Your task to perform on an android device: turn off data saver in the chrome app Image 0: 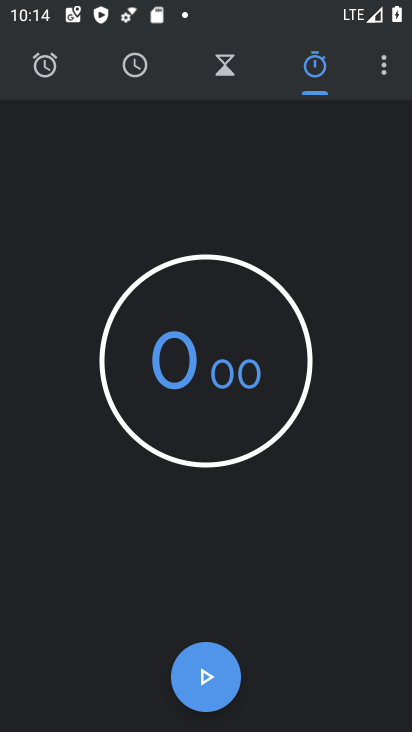
Step 0: press home button
Your task to perform on an android device: turn off data saver in the chrome app Image 1: 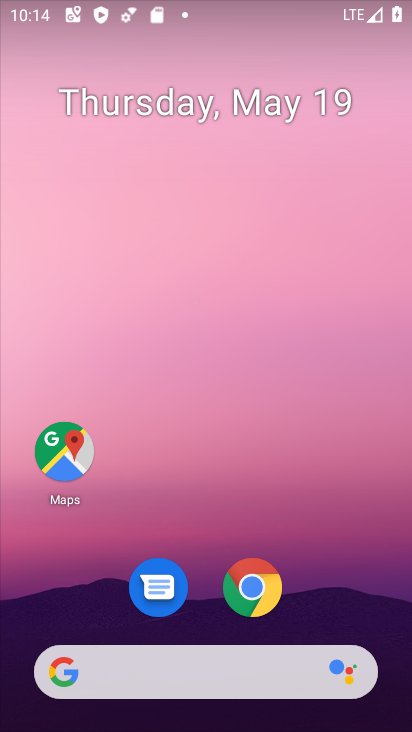
Step 1: click (263, 593)
Your task to perform on an android device: turn off data saver in the chrome app Image 2: 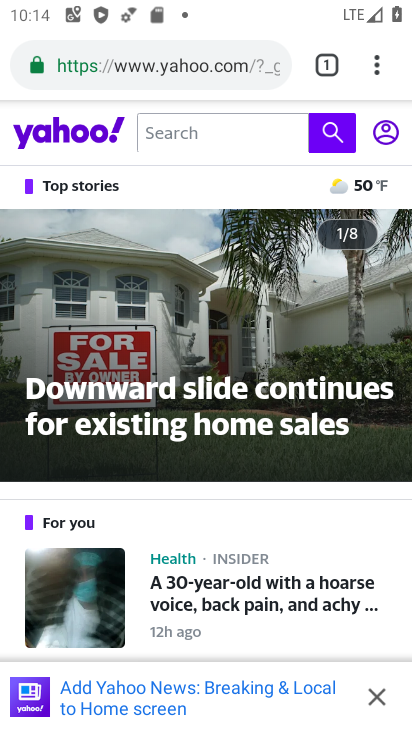
Step 2: click (386, 72)
Your task to perform on an android device: turn off data saver in the chrome app Image 3: 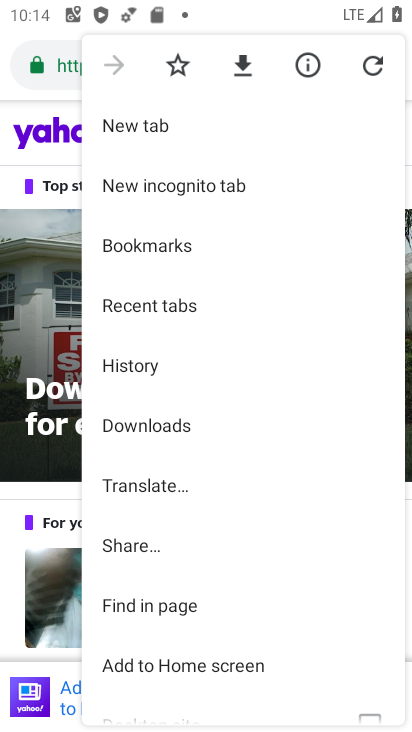
Step 3: click (200, 602)
Your task to perform on an android device: turn off data saver in the chrome app Image 4: 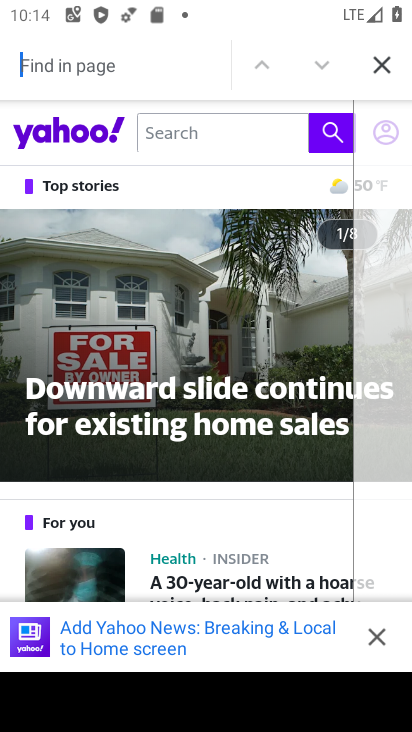
Step 4: click (369, 63)
Your task to perform on an android device: turn off data saver in the chrome app Image 5: 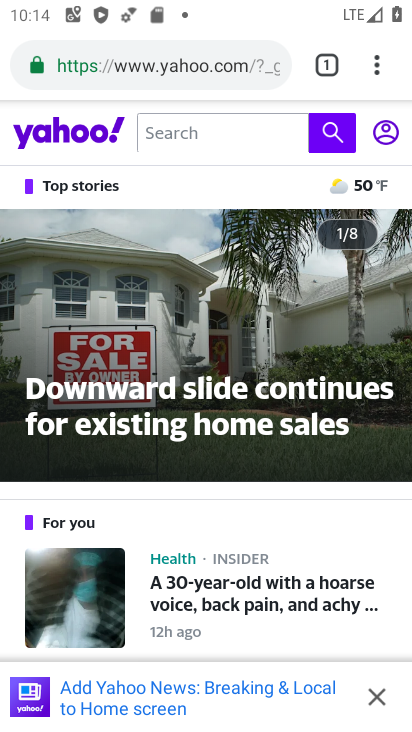
Step 5: click (376, 60)
Your task to perform on an android device: turn off data saver in the chrome app Image 6: 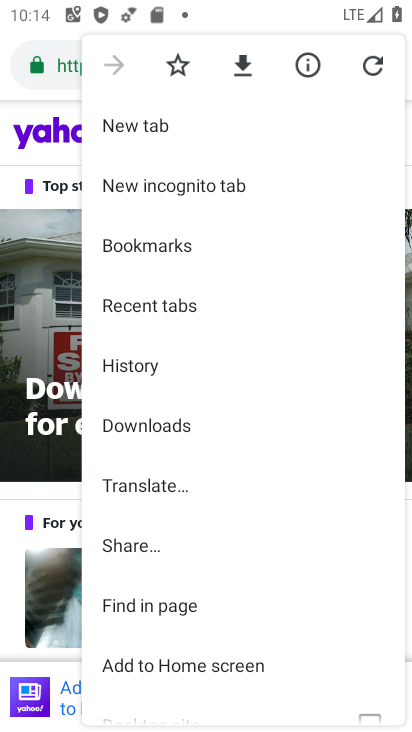
Step 6: drag from (183, 609) to (298, 213)
Your task to perform on an android device: turn off data saver in the chrome app Image 7: 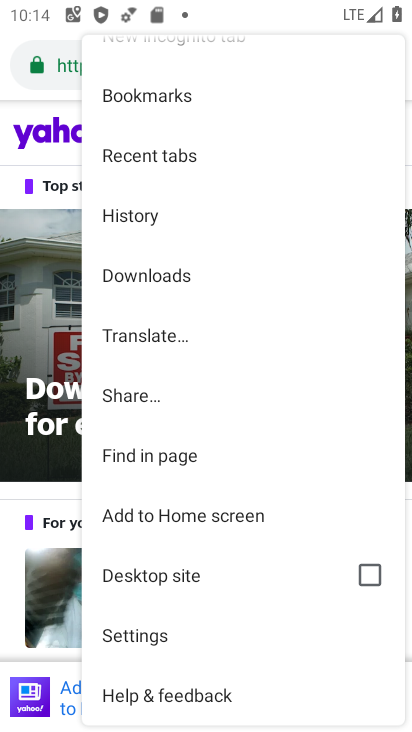
Step 7: drag from (124, 679) to (168, 338)
Your task to perform on an android device: turn off data saver in the chrome app Image 8: 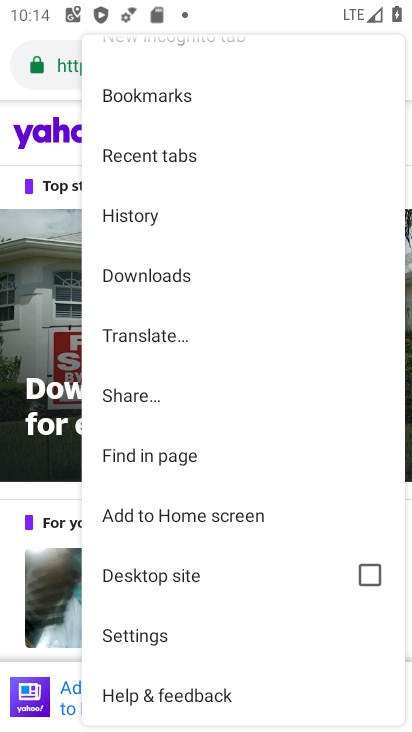
Step 8: click (156, 627)
Your task to perform on an android device: turn off data saver in the chrome app Image 9: 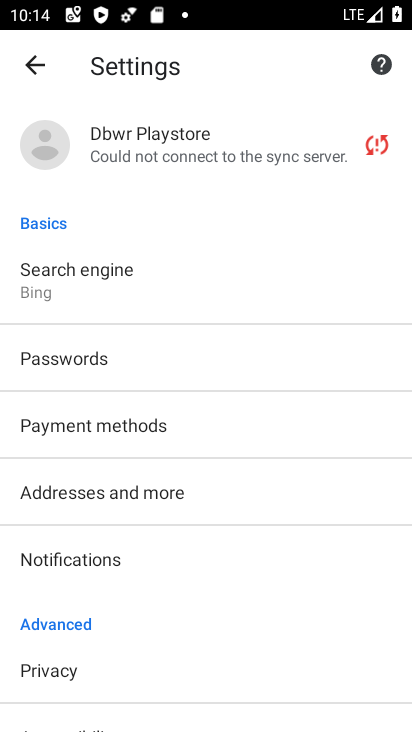
Step 9: drag from (156, 627) to (244, 198)
Your task to perform on an android device: turn off data saver in the chrome app Image 10: 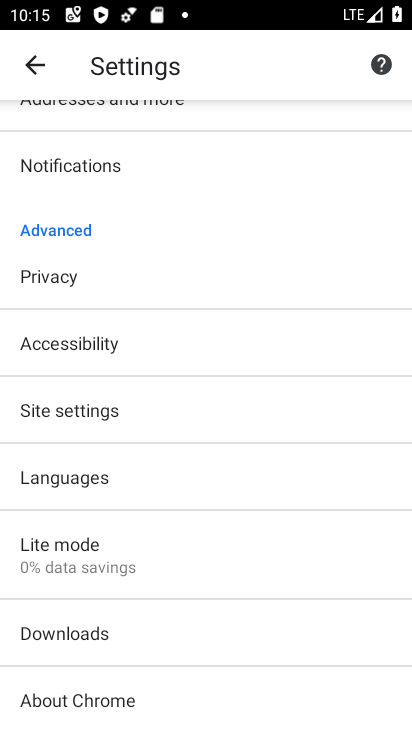
Step 10: click (139, 554)
Your task to perform on an android device: turn off data saver in the chrome app Image 11: 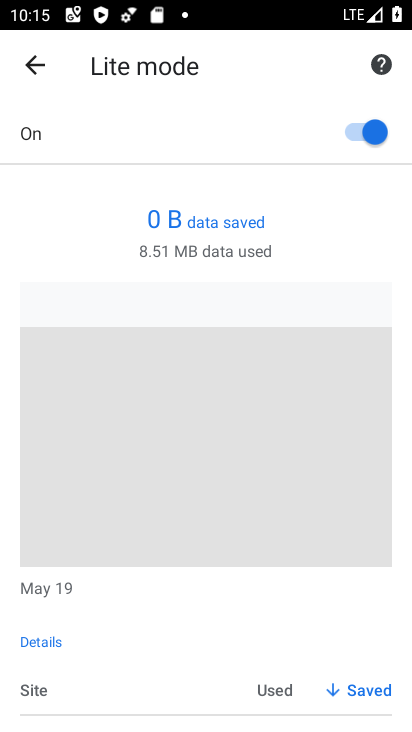
Step 11: click (341, 136)
Your task to perform on an android device: turn off data saver in the chrome app Image 12: 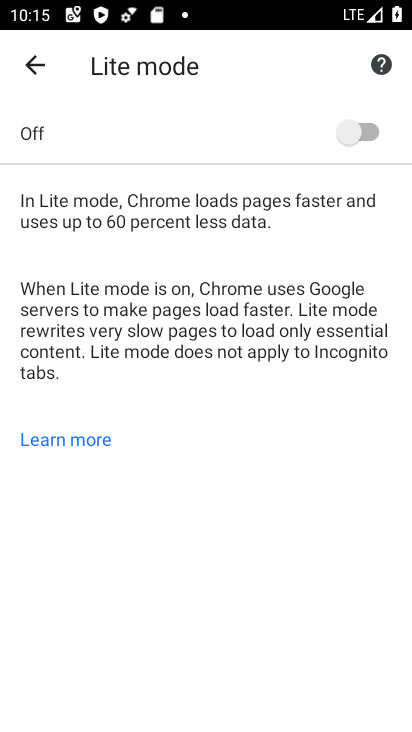
Step 12: task complete